Your task to perform on an android device: Go to settings Image 0: 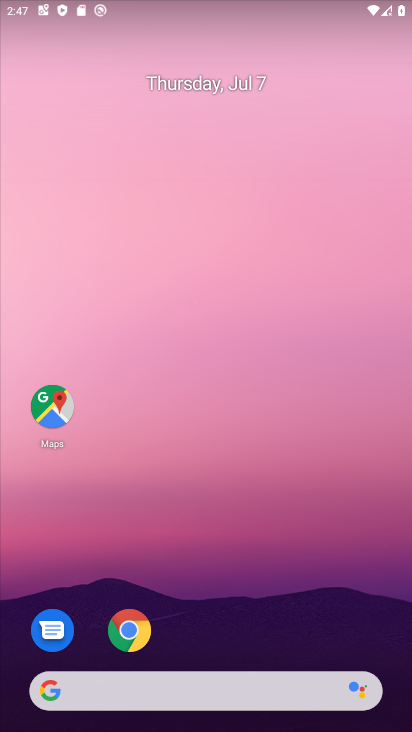
Step 0: drag from (274, 627) to (261, 276)
Your task to perform on an android device: Go to settings Image 1: 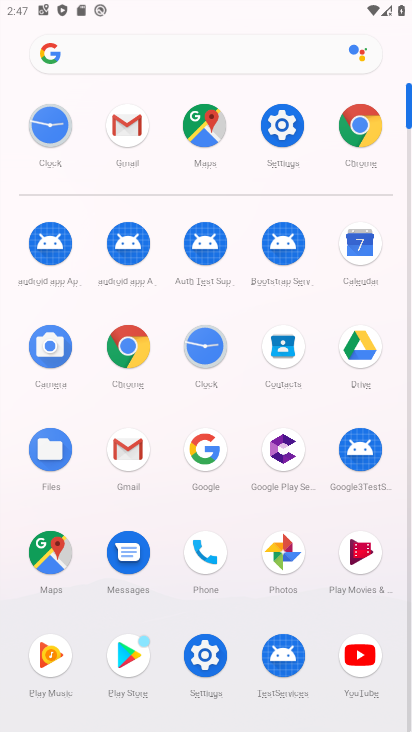
Step 1: click (282, 120)
Your task to perform on an android device: Go to settings Image 2: 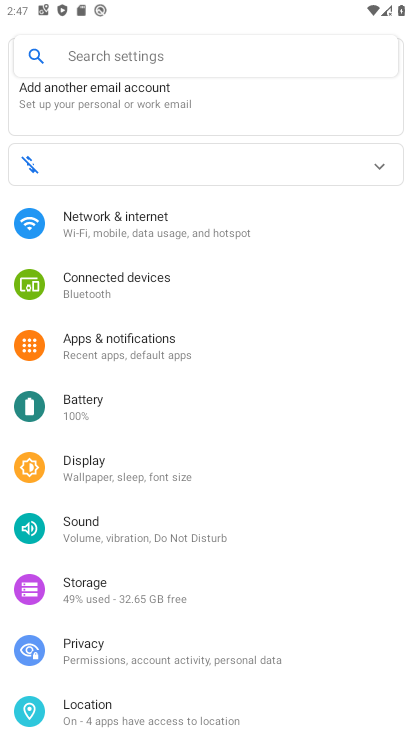
Step 2: task complete